Your task to perform on an android device: open app "DuckDuckGo Privacy Browser" (install if not already installed), go to login, and select forgot password Image 0: 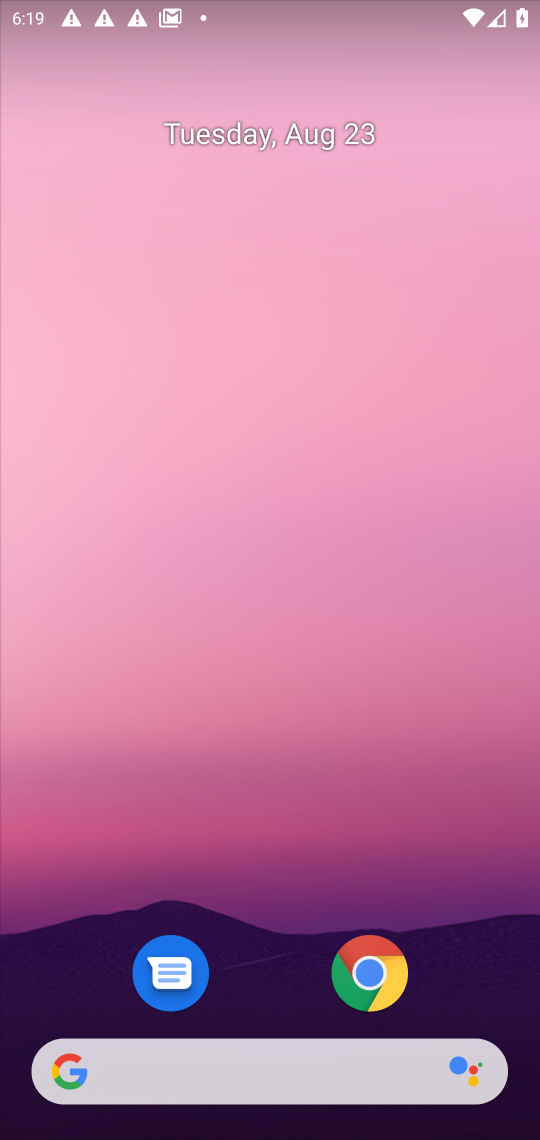
Step 0: drag from (266, 705) to (243, 291)
Your task to perform on an android device: open app "DuckDuckGo Privacy Browser" (install if not already installed), go to login, and select forgot password Image 1: 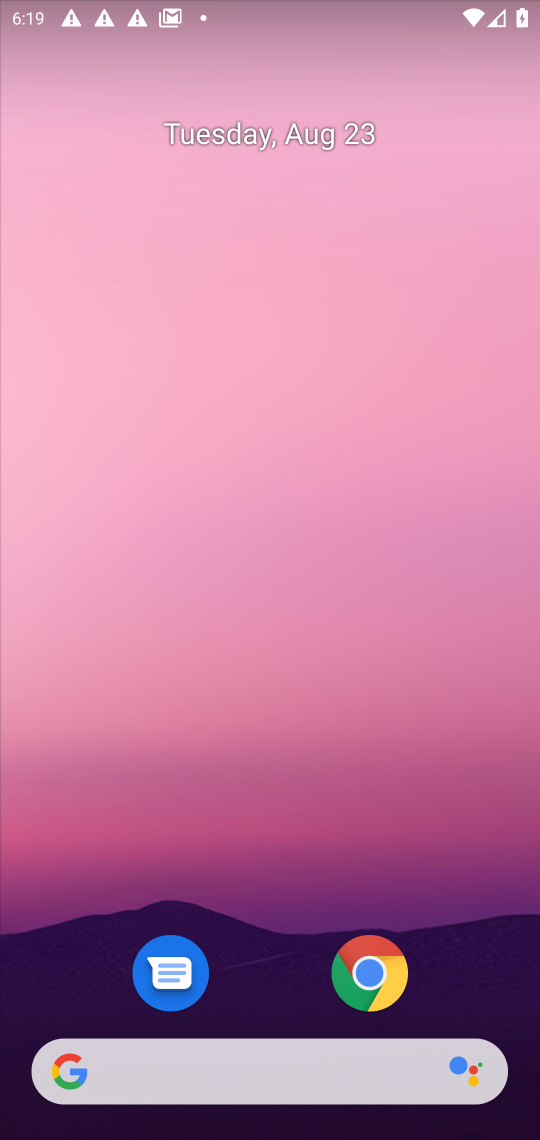
Step 1: drag from (242, 930) to (283, 154)
Your task to perform on an android device: open app "DuckDuckGo Privacy Browser" (install if not already installed), go to login, and select forgot password Image 2: 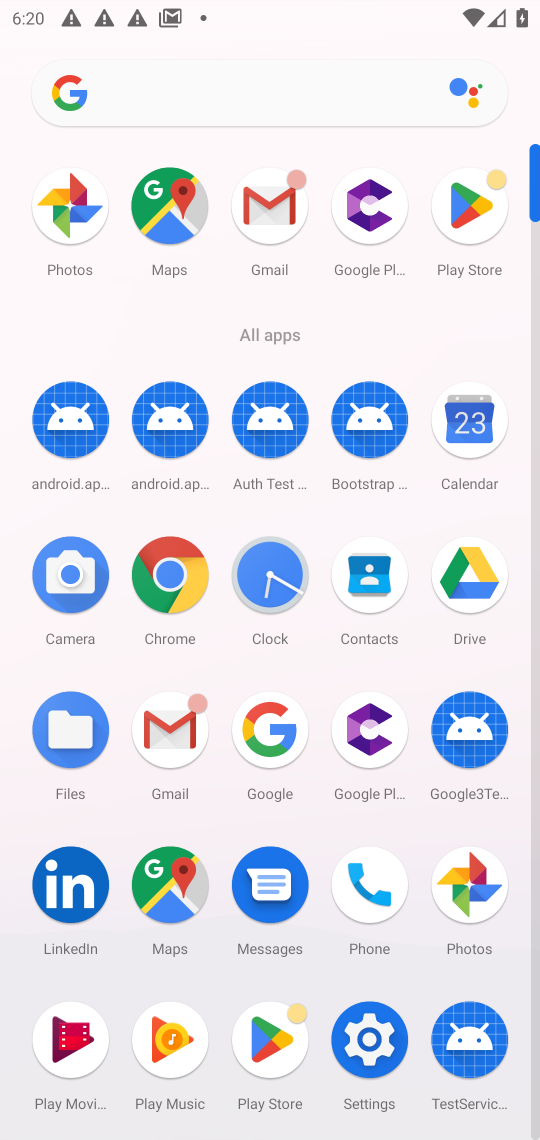
Step 2: click (459, 220)
Your task to perform on an android device: open app "DuckDuckGo Privacy Browser" (install if not already installed), go to login, and select forgot password Image 3: 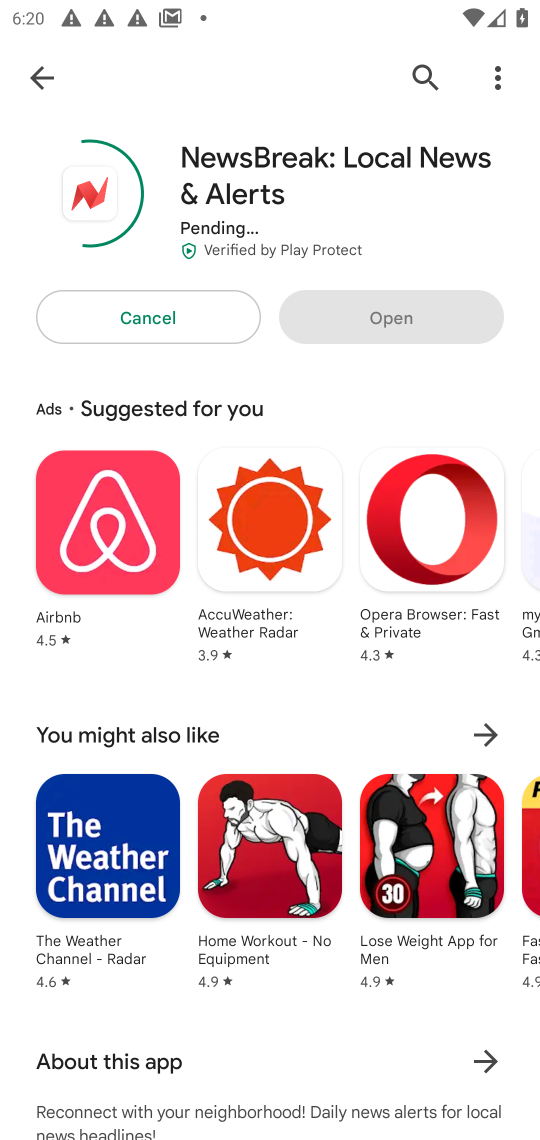
Step 3: click (420, 81)
Your task to perform on an android device: open app "DuckDuckGo Privacy Browser" (install if not already installed), go to login, and select forgot password Image 4: 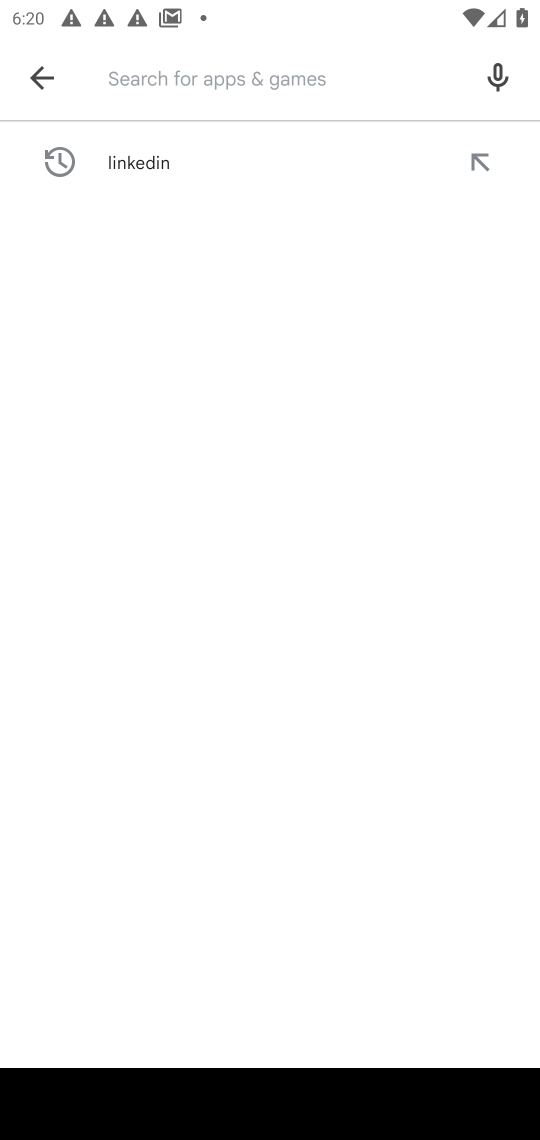
Step 4: click (133, 81)
Your task to perform on an android device: open app "DuckDuckGo Privacy Browser" (install if not already installed), go to login, and select forgot password Image 5: 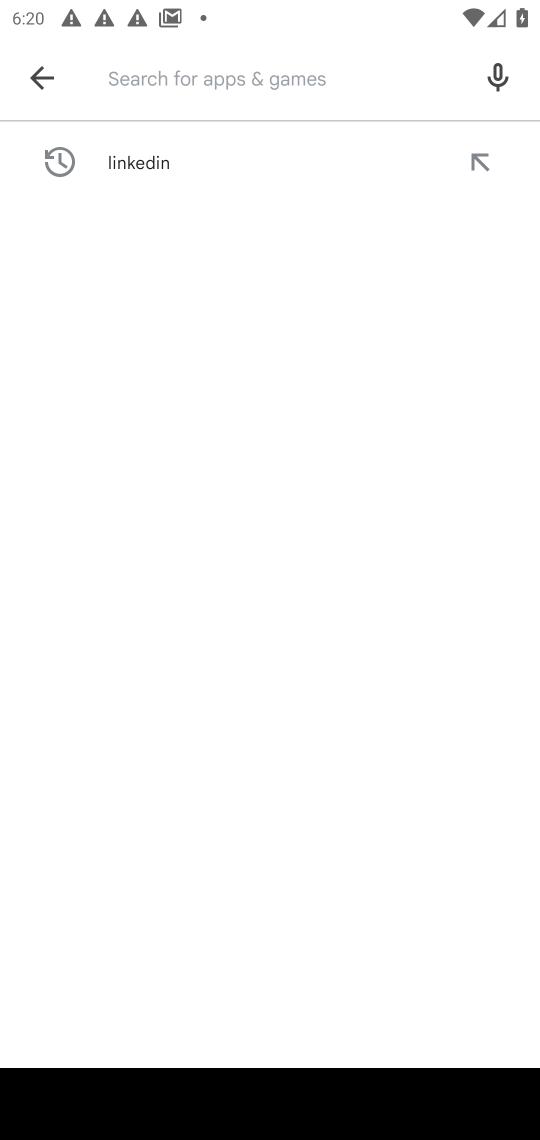
Step 5: type "DuckDuckGo Privacy Browser"
Your task to perform on an android device: open app "DuckDuckGo Privacy Browser" (install if not already installed), go to login, and select forgot password Image 6: 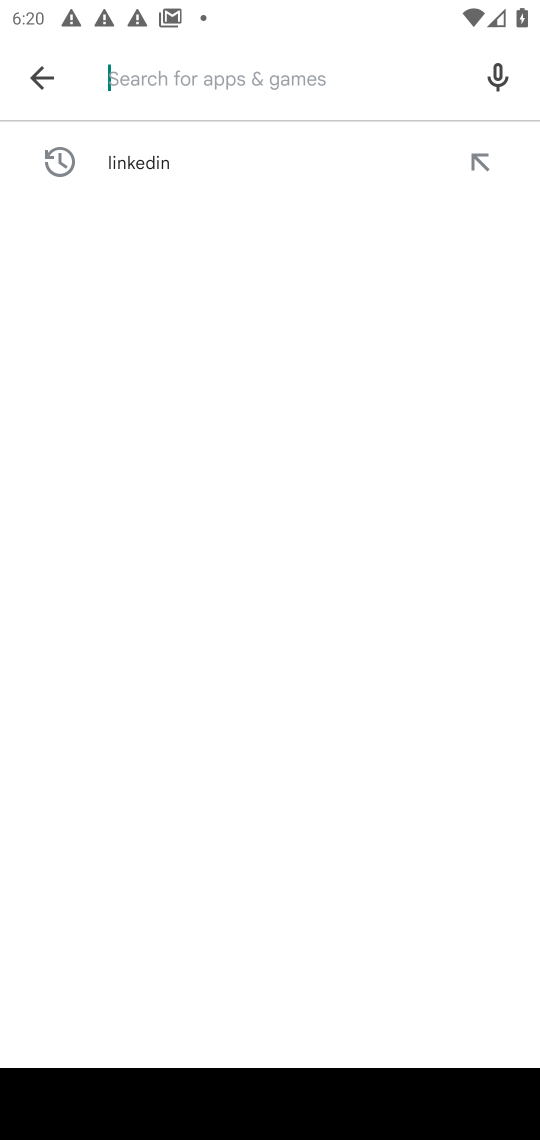
Step 6: click (417, 718)
Your task to perform on an android device: open app "DuckDuckGo Privacy Browser" (install if not already installed), go to login, and select forgot password Image 7: 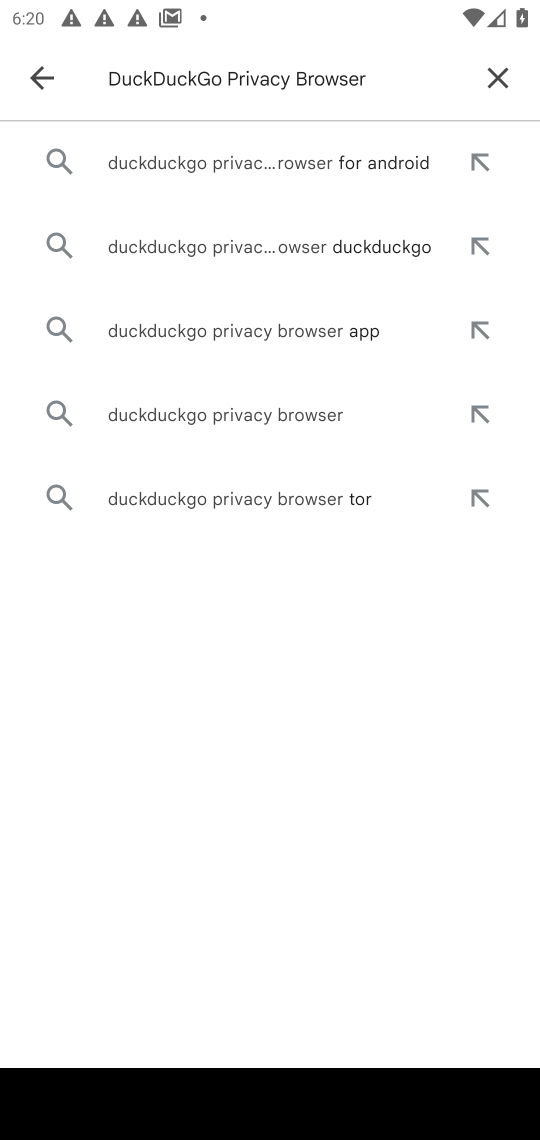
Step 7: click (287, 149)
Your task to perform on an android device: open app "DuckDuckGo Privacy Browser" (install if not already installed), go to login, and select forgot password Image 8: 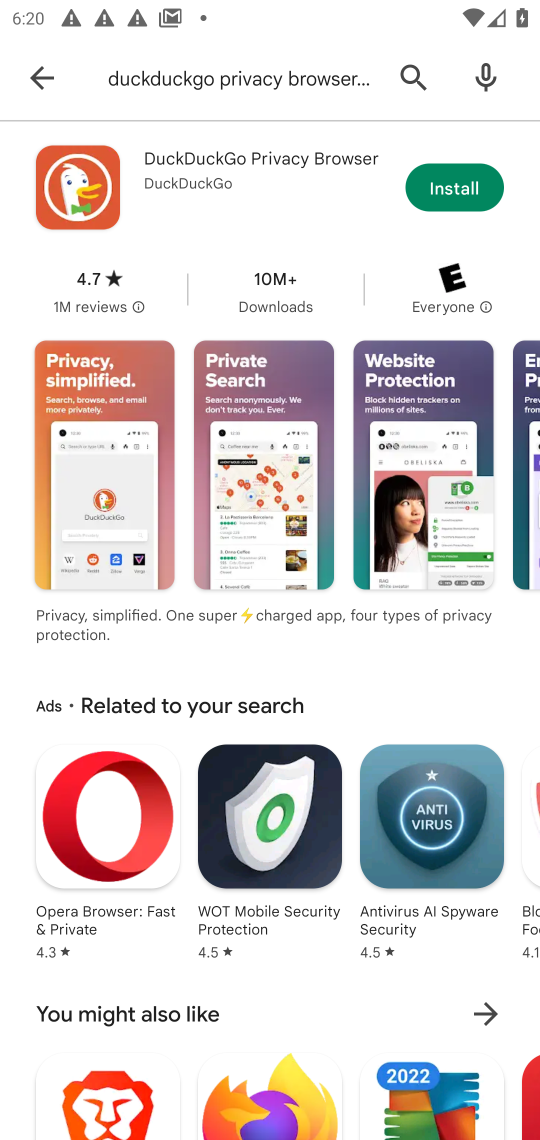
Step 8: click (440, 189)
Your task to perform on an android device: open app "DuckDuckGo Privacy Browser" (install if not already installed), go to login, and select forgot password Image 9: 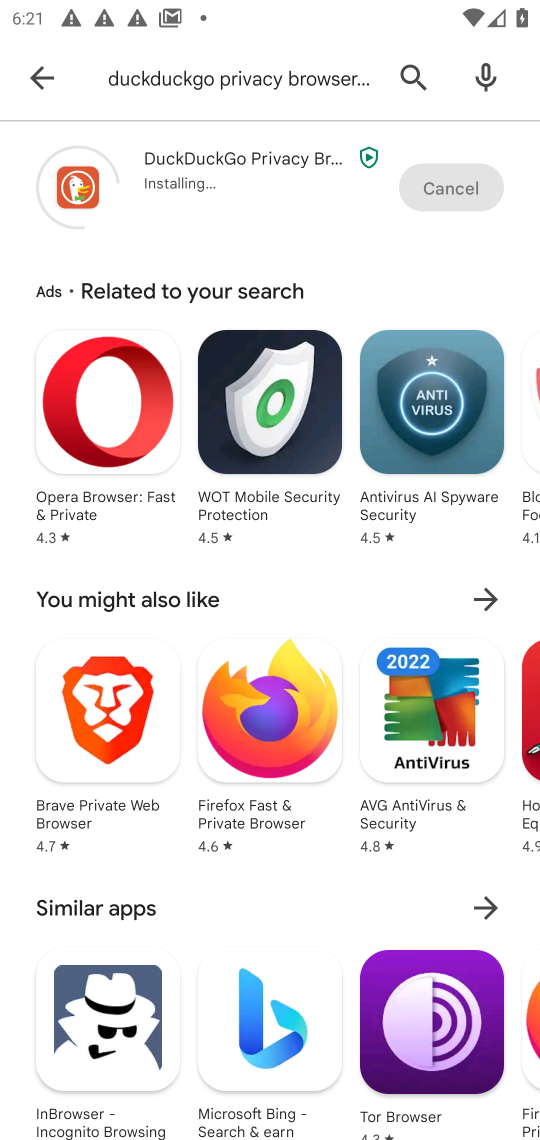
Step 9: click (272, 178)
Your task to perform on an android device: open app "DuckDuckGo Privacy Browser" (install if not already installed), go to login, and select forgot password Image 10: 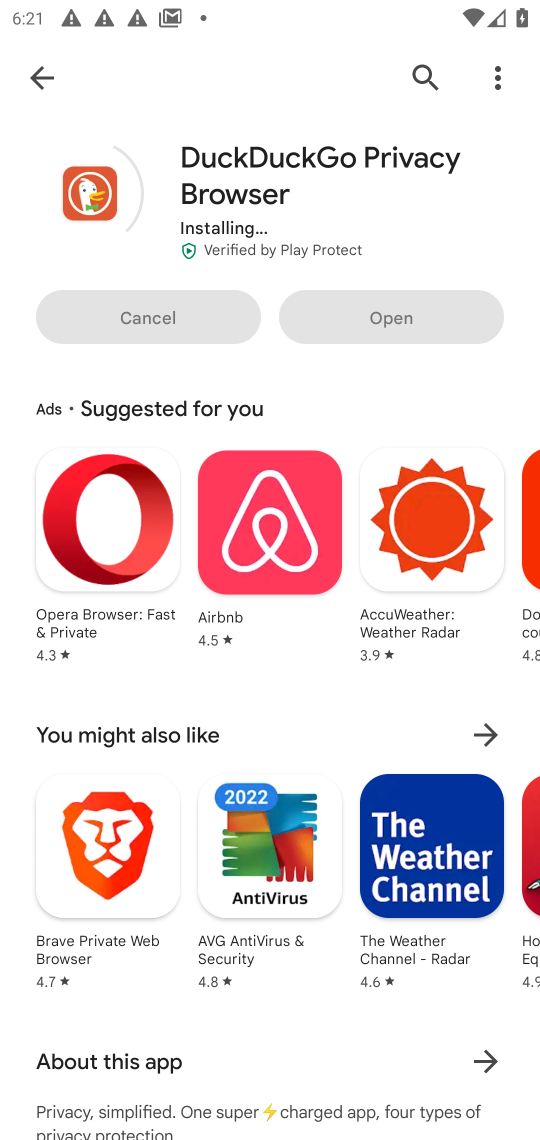
Step 10: click (107, 306)
Your task to perform on an android device: open app "DuckDuckGo Privacy Browser" (install if not already installed), go to login, and select forgot password Image 11: 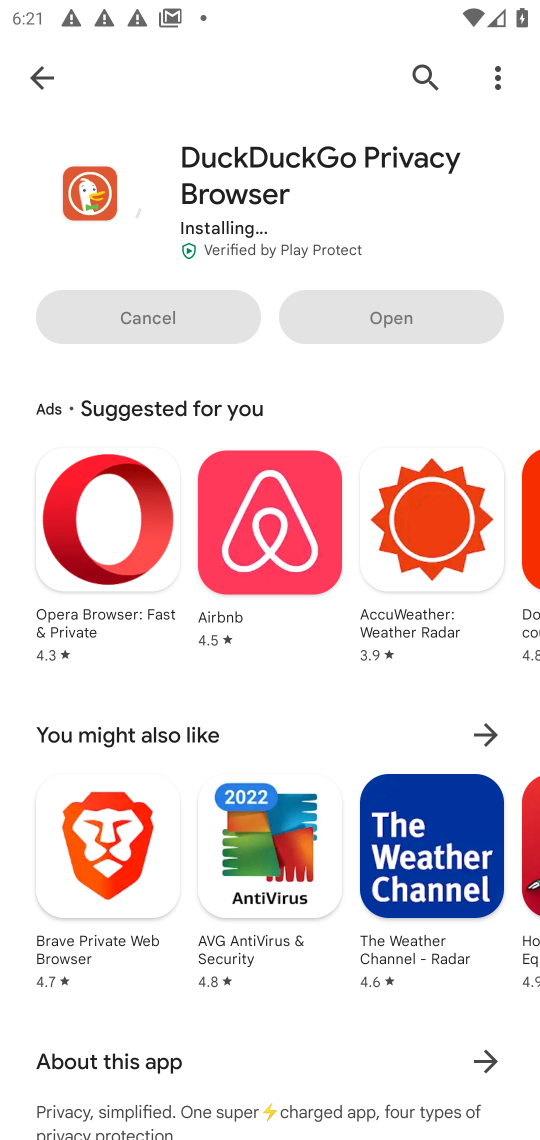
Step 11: press back button
Your task to perform on an android device: open app "DuckDuckGo Privacy Browser" (install if not already installed), go to login, and select forgot password Image 12: 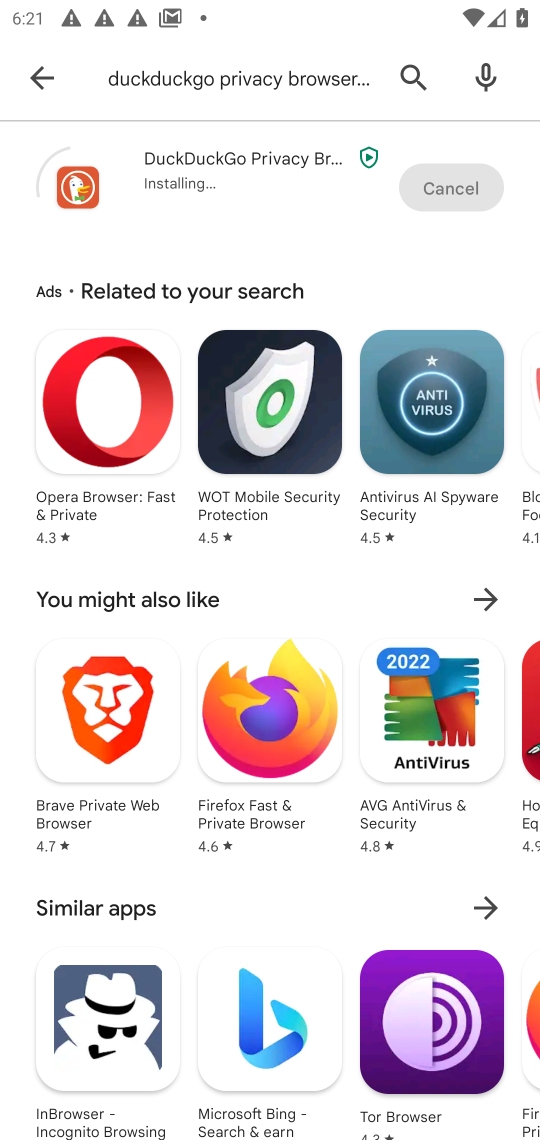
Step 12: click (193, 171)
Your task to perform on an android device: open app "DuckDuckGo Privacy Browser" (install if not already installed), go to login, and select forgot password Image 13: 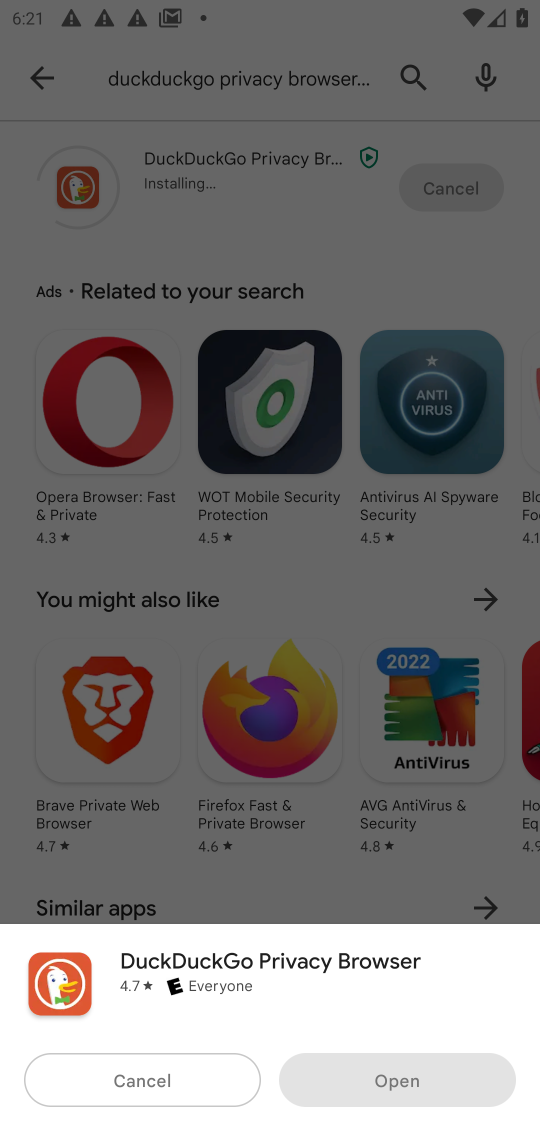
Step 13: click (278, 975)
Your task to perform on an android device: open app "DuckDuckGo Privacy Browser" (install if not already installed), go to login, and select forgot password Image 14: 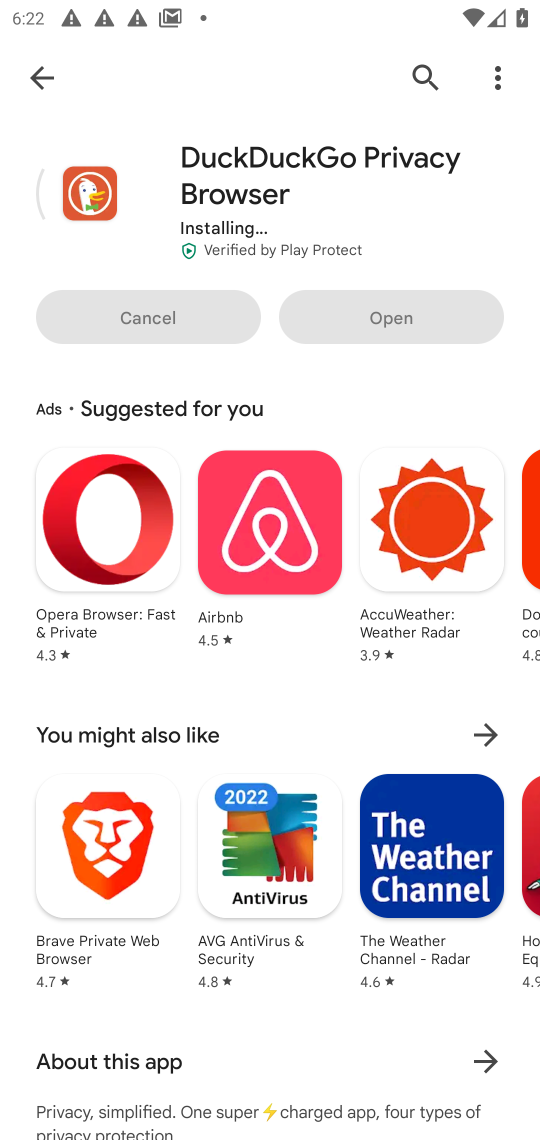
Step 14: press home button
Your task to perform on an android device: open app "DuckDuckGo Privacy Browser" (install if not already installed), go to login, and select forgot password Image 15: 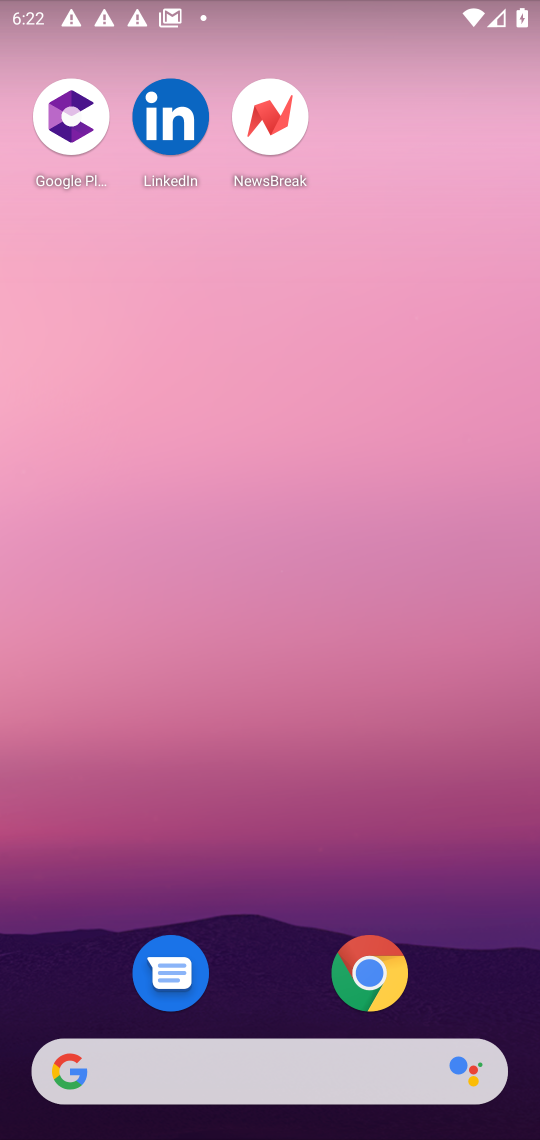
Step 15: drag from (272, 879) to (332, 109)
Your task to perform on an android device: open app "DuckDuckGo Privacy Browser" (install if not already installed), go to login, and select forgot password Image 16: 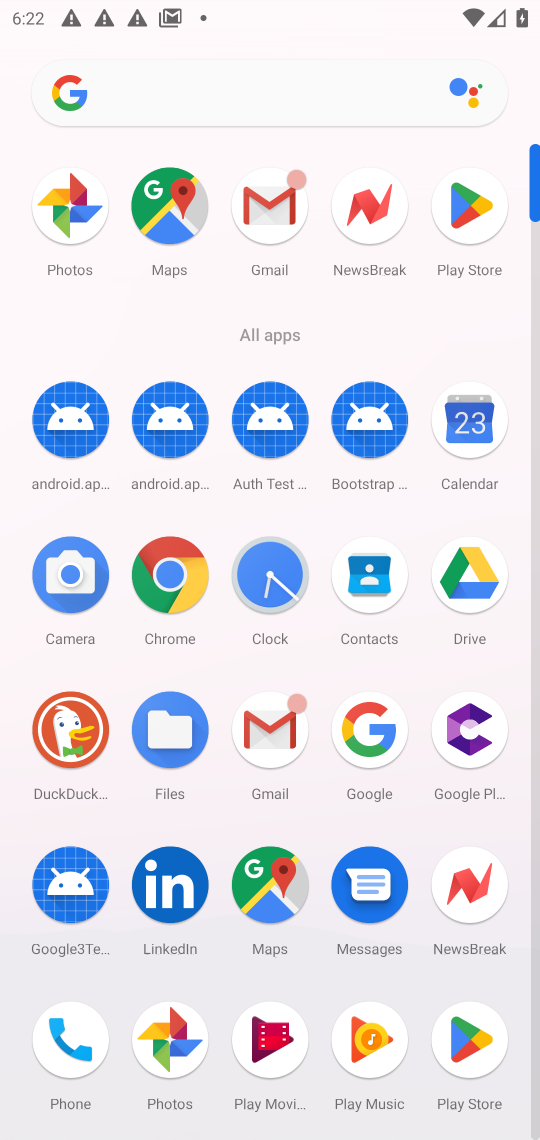
Step 16: click (473, 214)
Your task to perform on an android device: open app "DuckDuckGo Privacy Browser" (install if not already installed), go to login, and select forgot password Image 17: 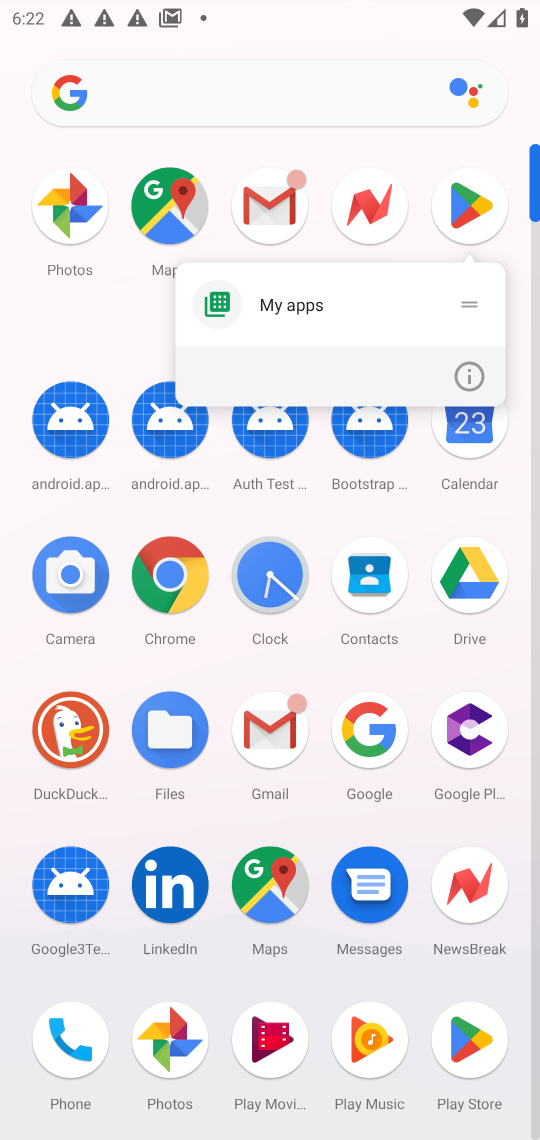
Step 17: click (473, 200)
Your task to perform on an android device: open app "DuckDuckGo Privacy Browser" (install if not already installed), go to login, and select forgot password Image 18: 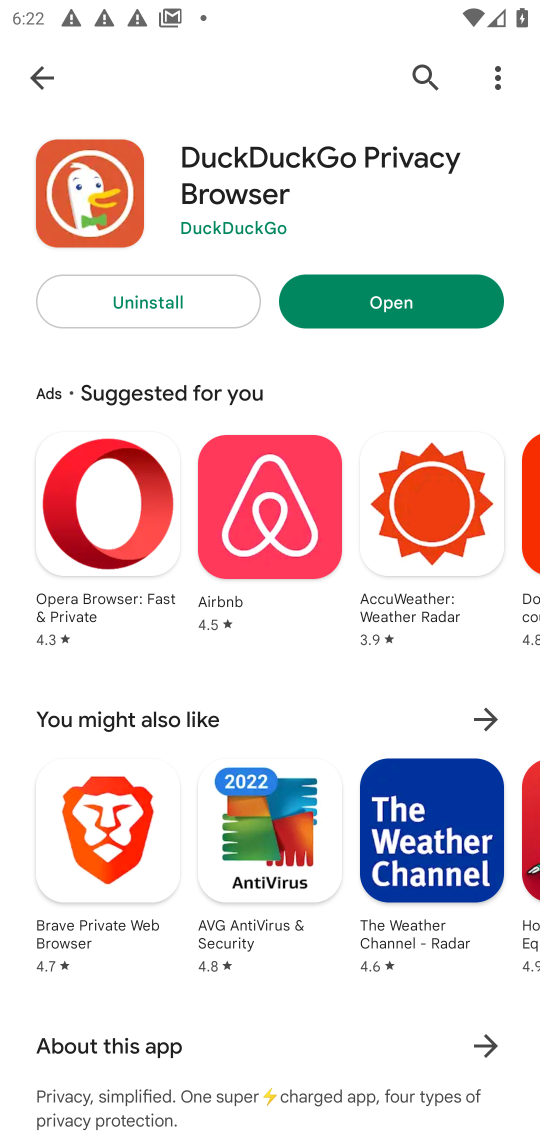
Step 18: click (402, 299)
Your task to perform on an android device: open app "DuckDuckGo Privacy Browser" (install if not already installed), go to login, and select forgot password Image 19: 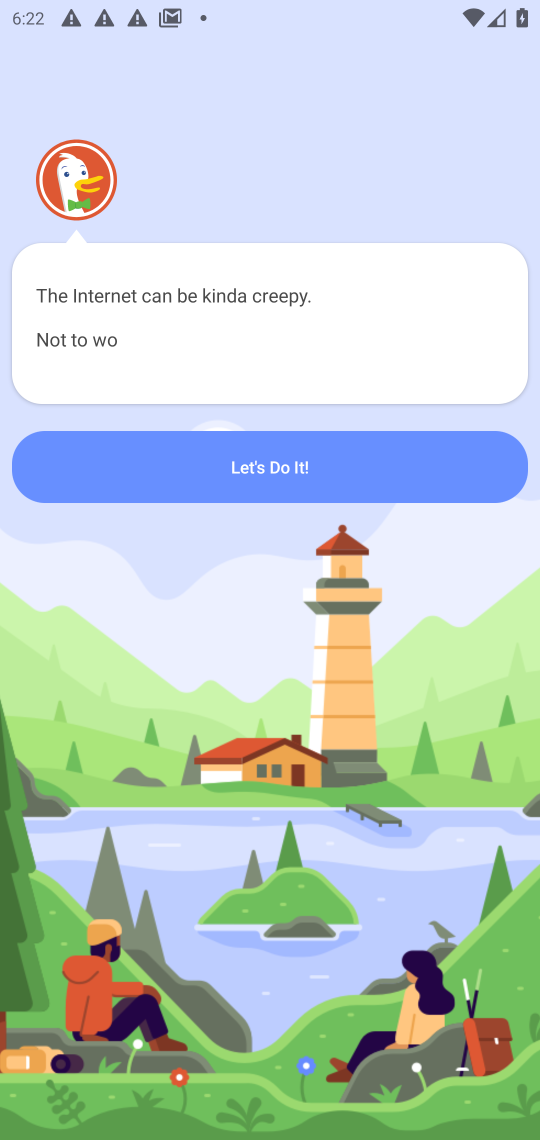
Step 19: click (327, 475)
Your task to perform on an android device: open app "DuckDuckGo Privacy Browser" (install if not already installed), go to login, and select forgot password Image 20: 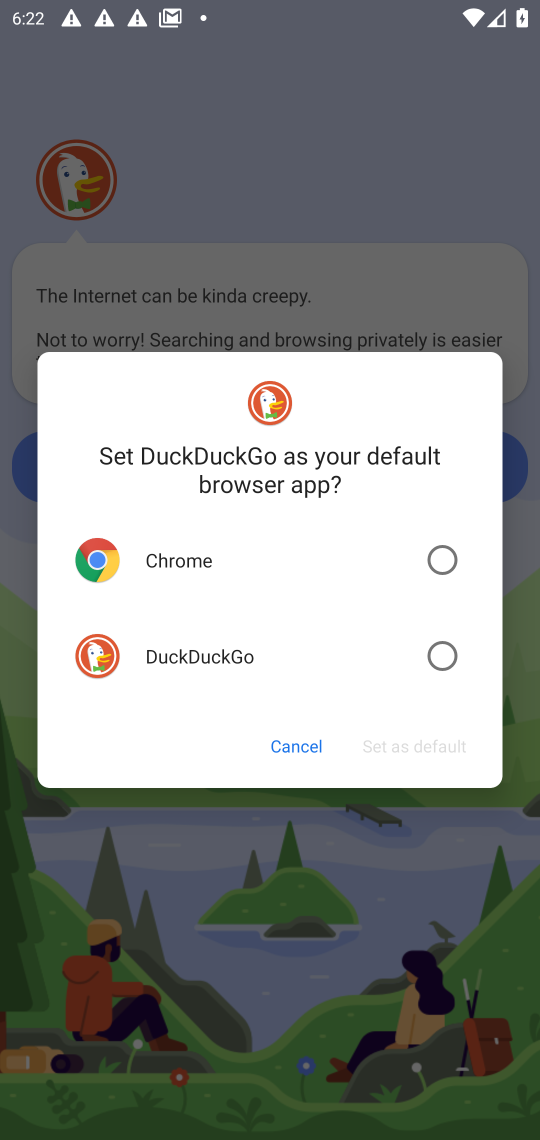
Step 20: click (276, 653)
Your task to perform on an android device: open app "DuckDuckGo Privacy Browser" (install if not already installed), go to login, and select forgot password Image 21: 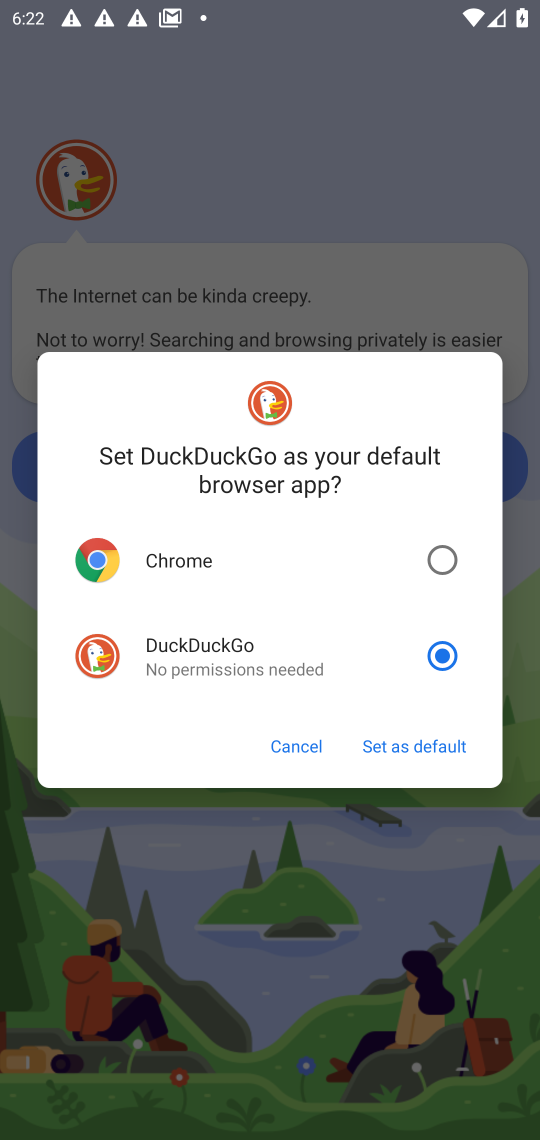
Step 21: click (390, 747)
Your task to perform on an android device: open app "DuckDuckGo Privacy Browser" (install if not already installed), go to login, and select forgot password Image 22: 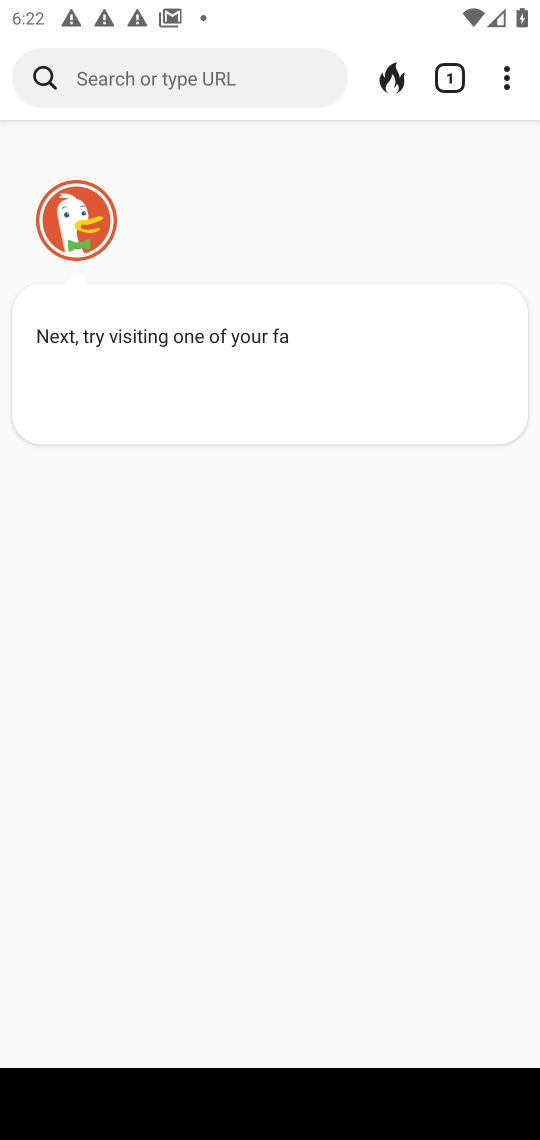
Step 22: task complete